Your task to perform on an android device: toggle notifications settings in the gmail app Image 0: 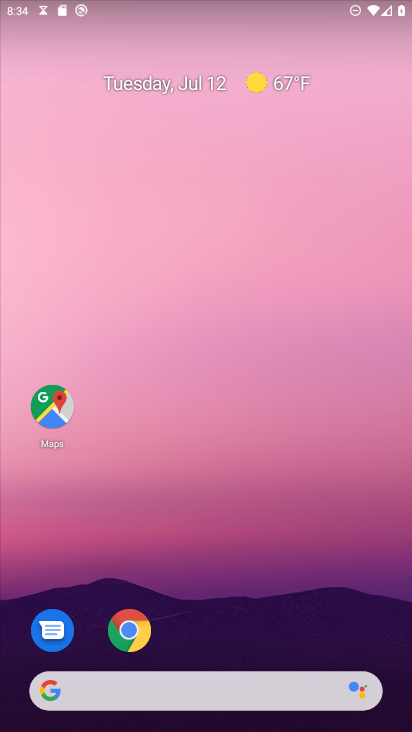
Step 0: drag from (254, 647) to (152, 136)
Your task to perform on an android device: toggle notifications settings in the gmail app Image 1: 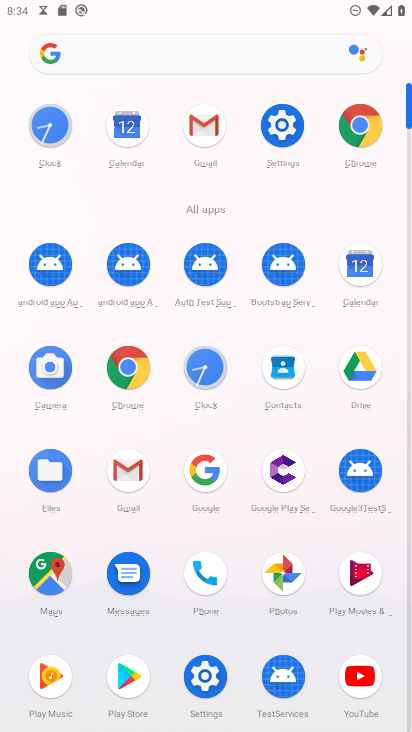
Step 1: click (211, 127)
Your task to perform on an android device: toggle notifications settings in the gmail app Image 2: 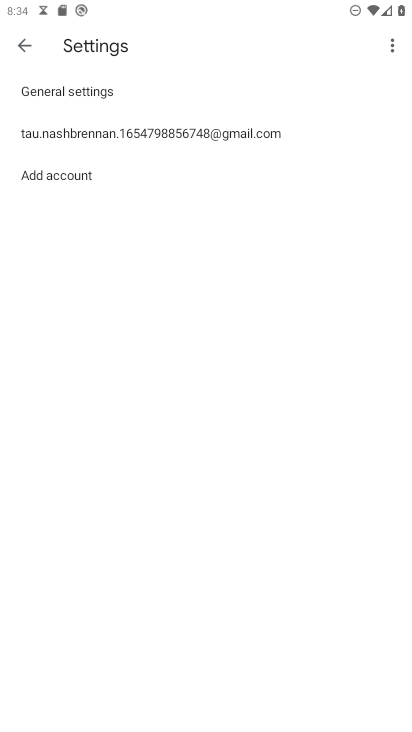
Step 2: click (226, 133)
Your task to perform on an android device: toggle notifications settings in the gmail app Image 3: 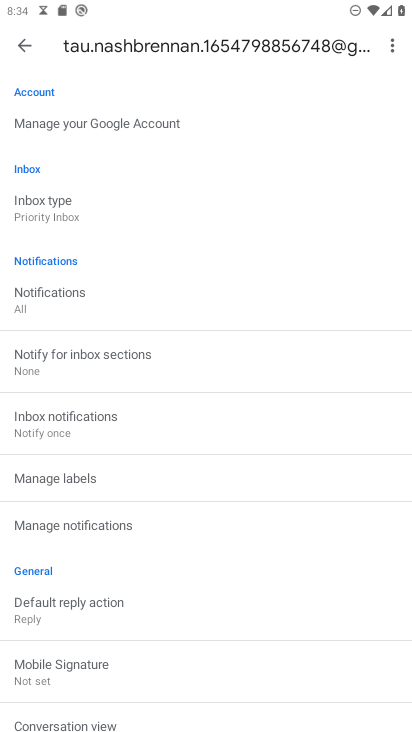
Step 3: click (163, 517)
Your task to perform on an android device: toggle notifications settings in the gmail app Image 4: 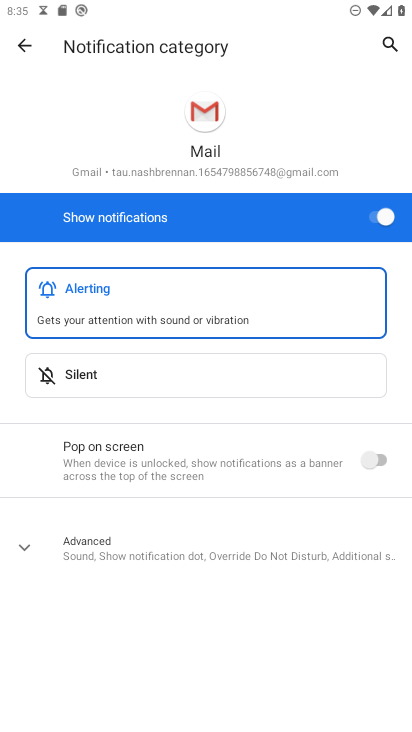
Step 4: click (376, 458)
Your task to perform on an android device: toggle notifications settings in the gmail app Image 5: 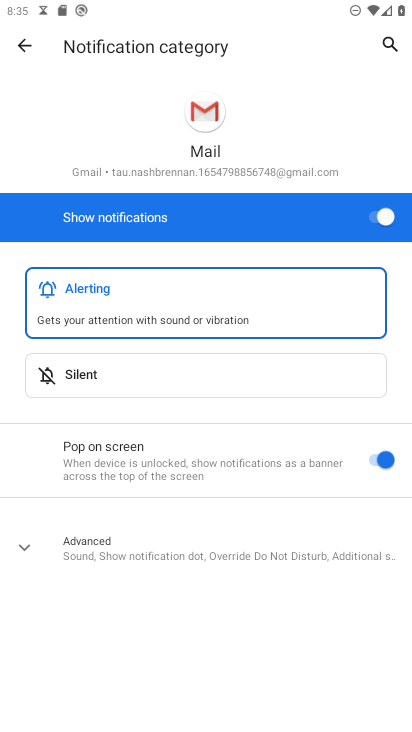
Step 5: click (379, 550)
Your task to perform on an android device: toggle notifications settings in the gmail app Image 6: 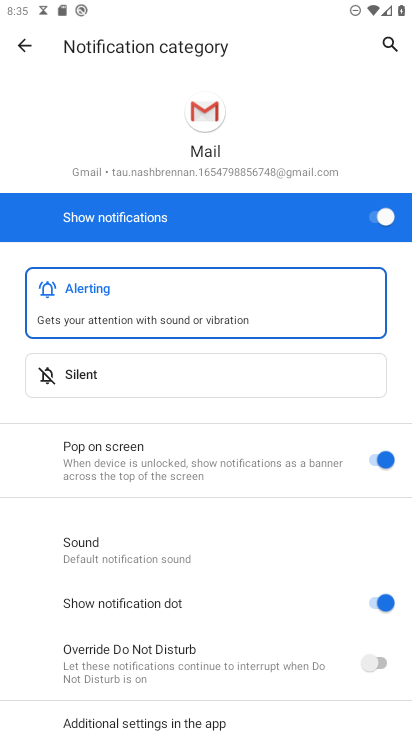
Step 6: drag from (272, 522) to (208, 137)
Your task to perform on an android device: toggle notifications settings in the gmail app Image 7: 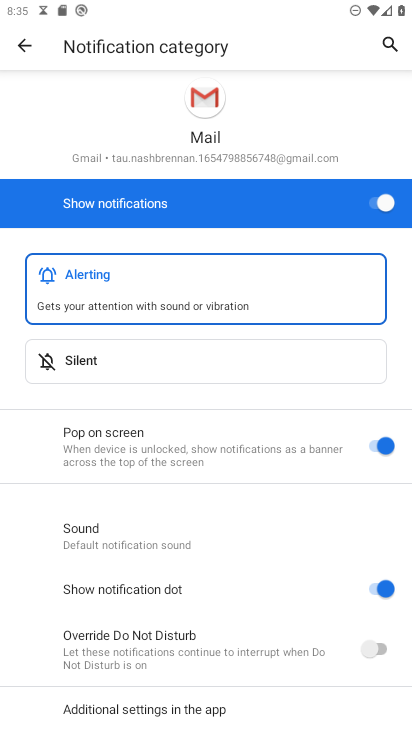
Step 7: click (382, 654)
Your task to perform on an android device: toggle notifications settings in the gmail app Image 8: 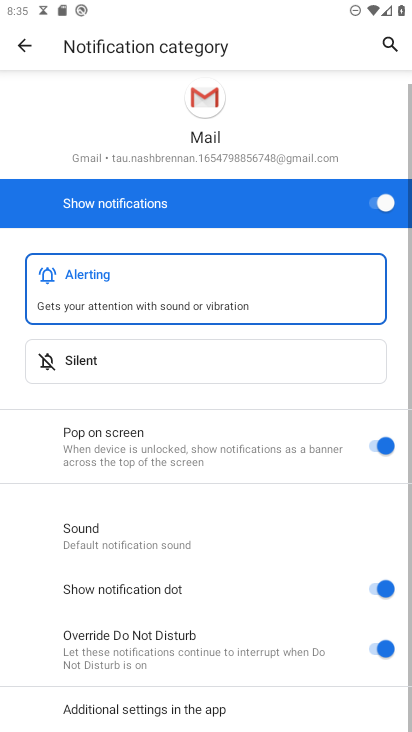
Step 8: click (380, 585)
Your task to perform on an android device: toggle notifications settings in the gmail app Image 9: 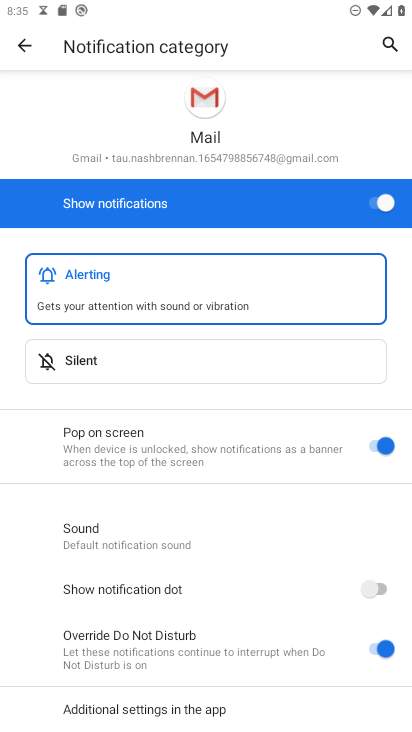
Step 9: task complete